Your task to perform on an android device: Open Maps and search for coffee Image 0: 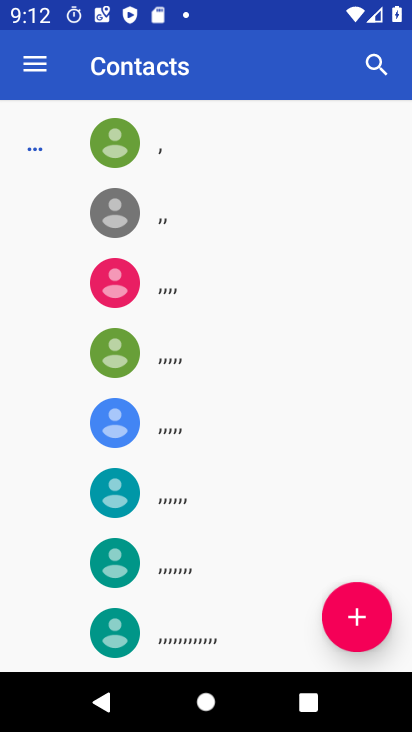
Step 0: press home button
Your task to perform on an android device: Open Maps and search for coffee Image 1: 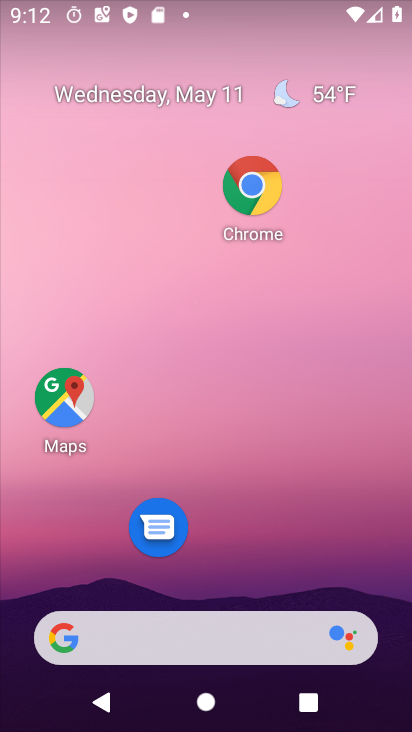
Step 1: click (69, 402)
Your task to perform on an android device: Open Maps and search for coffee Image 2: 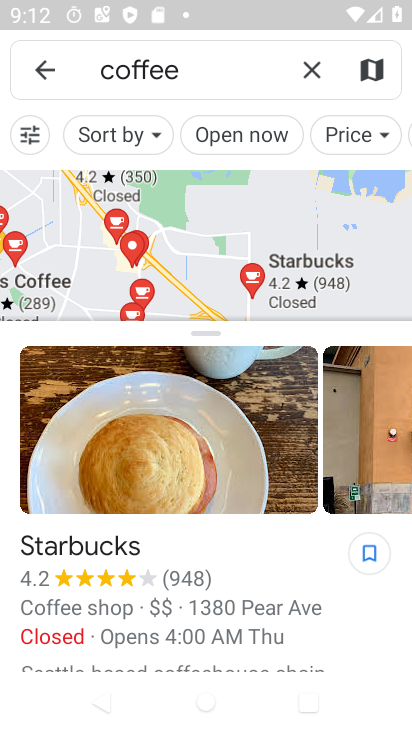
Step 2: task complete